Your task to perform on an android device: toggle notification dots Image 0: 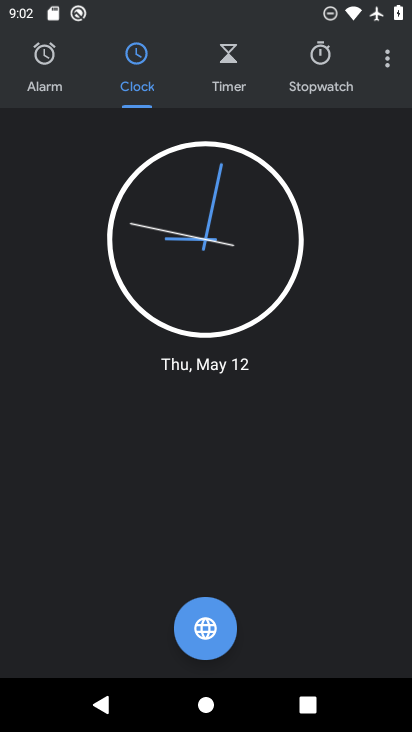
Step 0: press home button
Your task to perform on an android device: toggle notification dots Image 1: 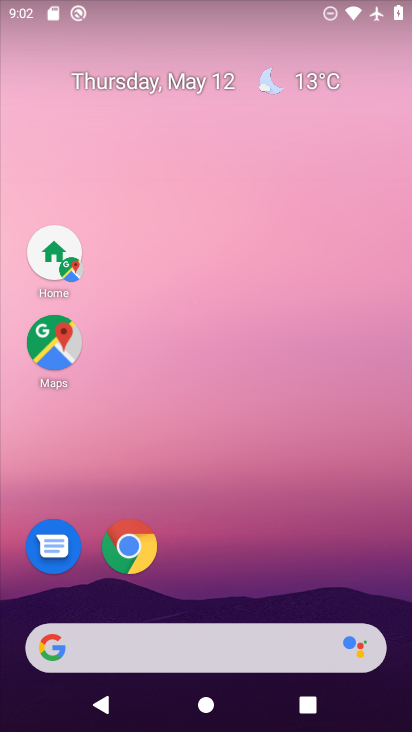
Step 1: drag from (117, 645) to (258, 102)
Your task to perform on an android device: toggle notification dots Image 2: 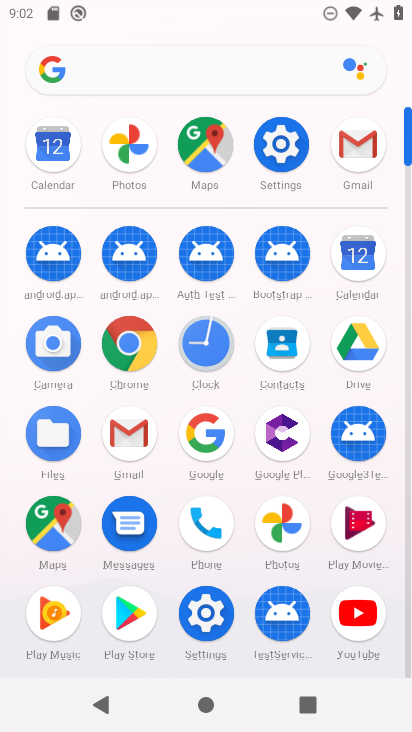
Step 2: click (278, 148)
Your task to perform on an android device: toggle notification dots Image 3: 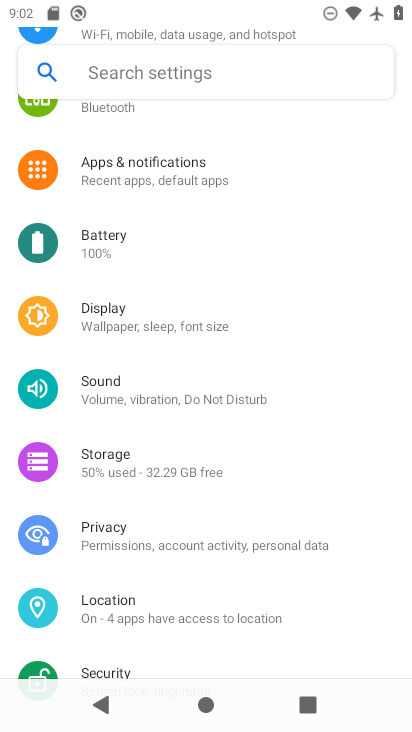
Step 3: click (166, 166)
Your task to perform on an android device: toggle notification dots Image 4: 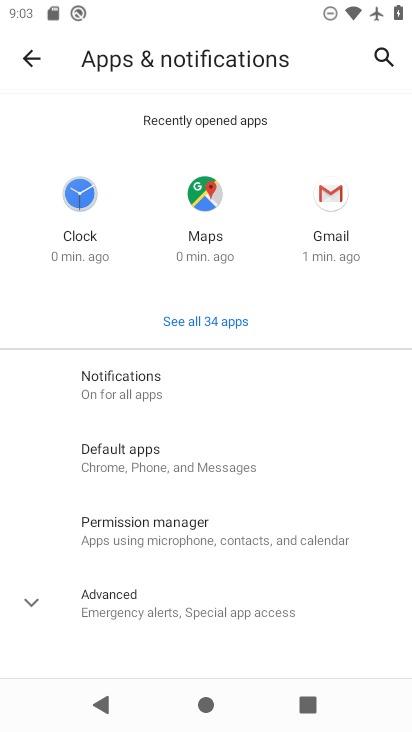
Step 4: drag from (189, 594) to (249, 289)
Your task to perform on an android device: toggle notification dots Image 5: 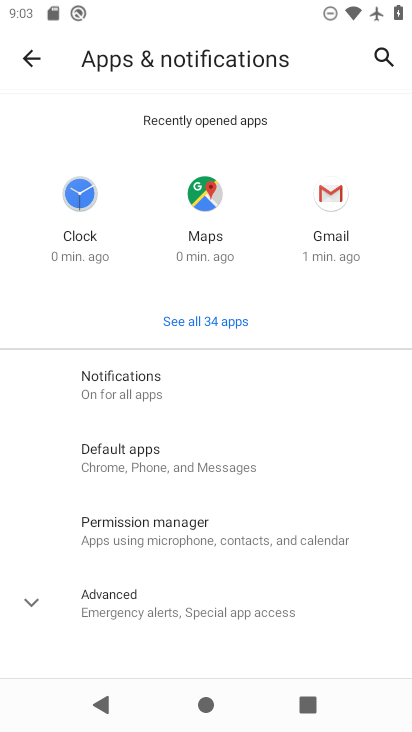
Step 5: click (126, 395)
Your task to perform on an android device: toggle notification dots Image 6: 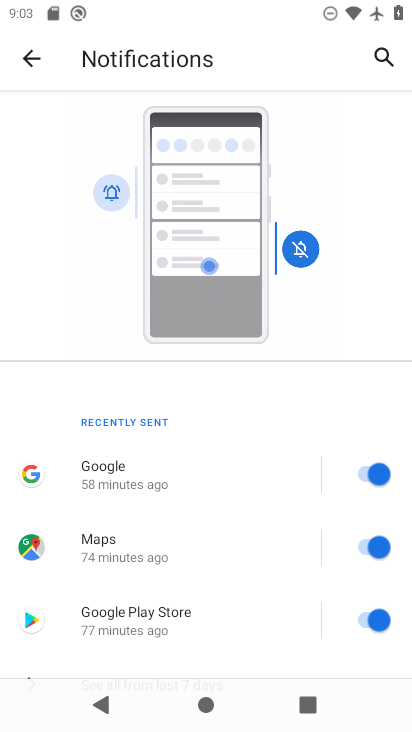
Step 6: drag from (217, 631) to (318, 172)
Your task to perform on an android device: toggle notification dots Image 7: 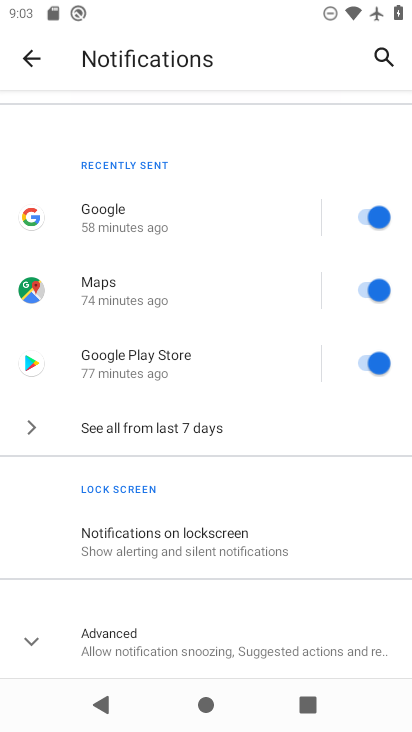
Step 7: click (163, 641)
Your task to perform on an android device: toggle notification dots Image 8: 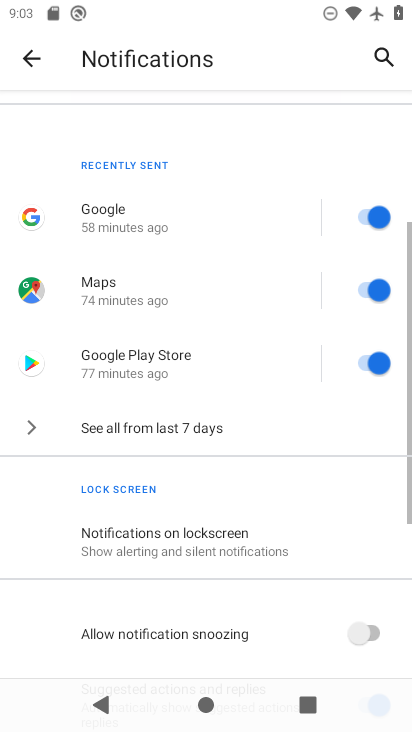
Step 8: drag from (222, 589) to (322, 149)
Your task to perform on an android device: toggle notification dots Image 9: 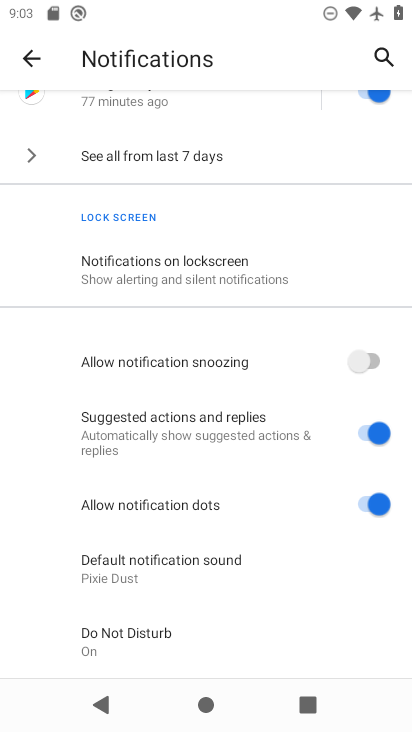
Step 9: click (366, 504)
Your task to perform on an android device: toggle notification dots Image 10: 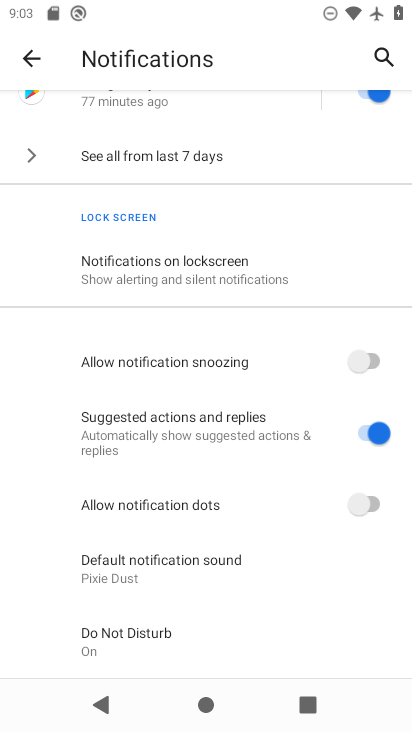
Step 10: task complete